Your task to perform on an android device: Is it going to rain this weekend? Image 0: 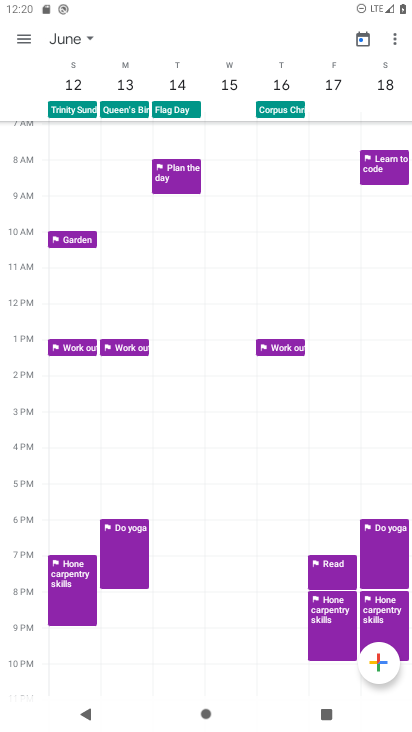
Step 0: press home button
Your task to perform on an android device: Is it going to rain this weekend? Image 1: 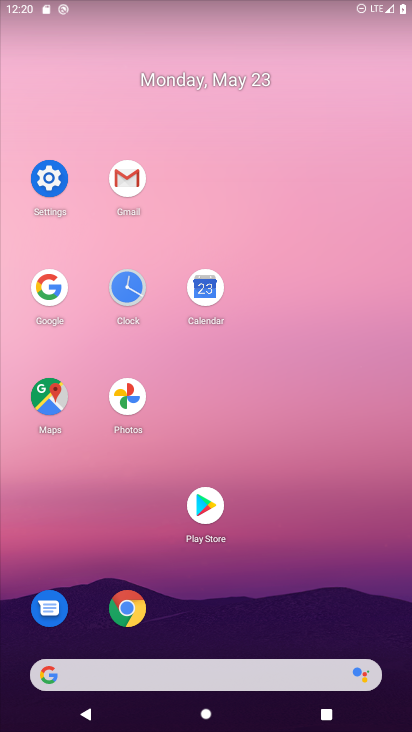
Step 1: click (53, 279)
Your task to perform on an android device: Is it going to rain this weekend? Image 2: 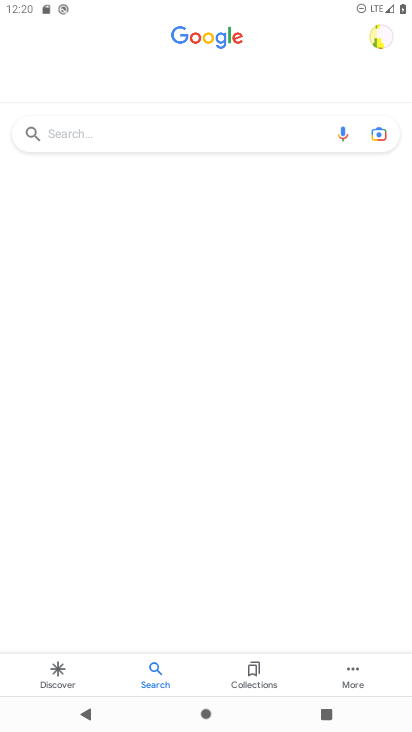
Step 2: drag from (203, 127) to (106, 128)
Your task to perform on an android device: Is it going to rain this weekend? Image 3: 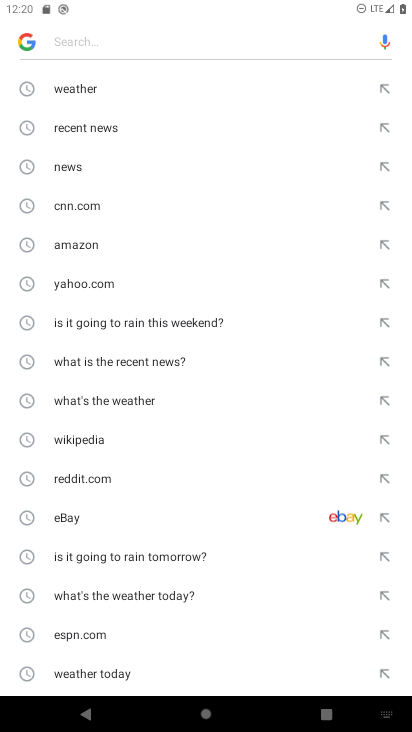
Step 3: click (127, 87)
Your task to perform on an android device: Is it going to rain this weekend? Image 4: 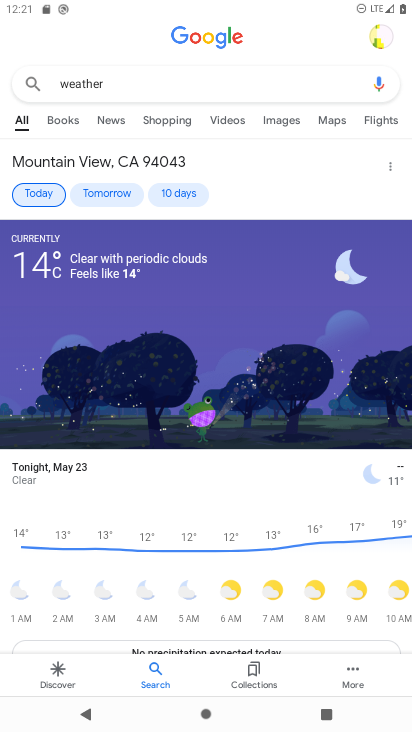
Step 4: click (169, 194)
Your task to perform on an android device: Is it going to rain this weekend? Image 5: 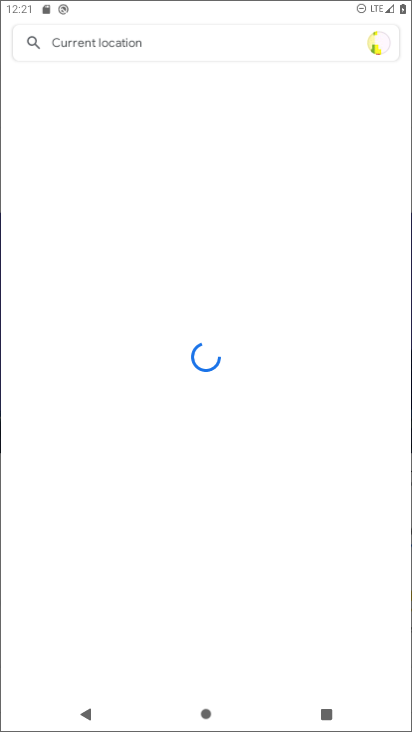
Step 5: click (169, 194)
Your task to perform on an android device: Is it going to rain this weekend? Image 6: 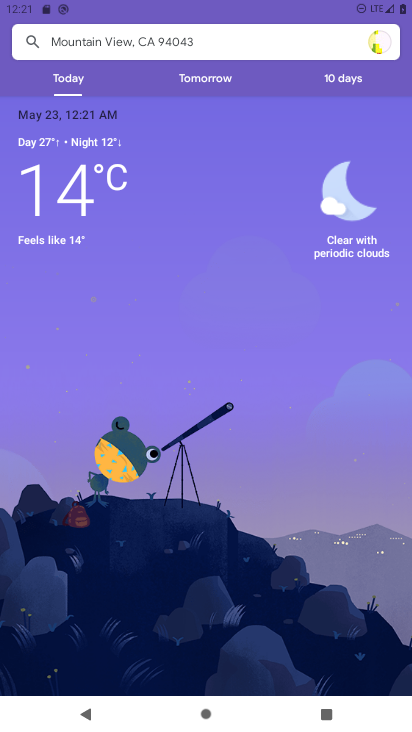
Step 6: click (370, 75)
Your task to perform on an android device: Is it going to rain this weekend? Image 7: 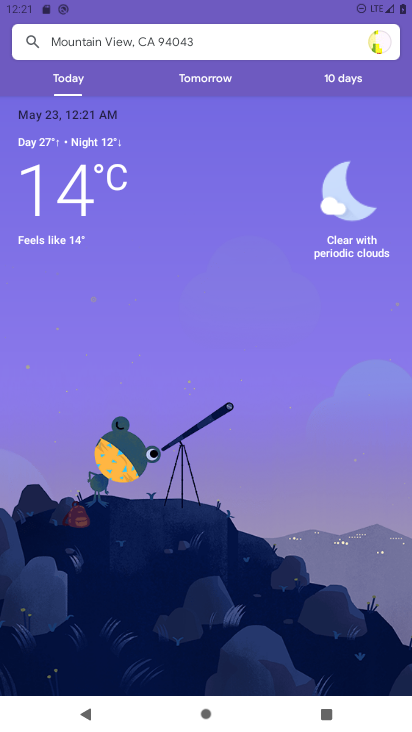
Step 7: click (357, 78)
Your task to perform on an android device: Is it going to rain this weekend? Image 8: 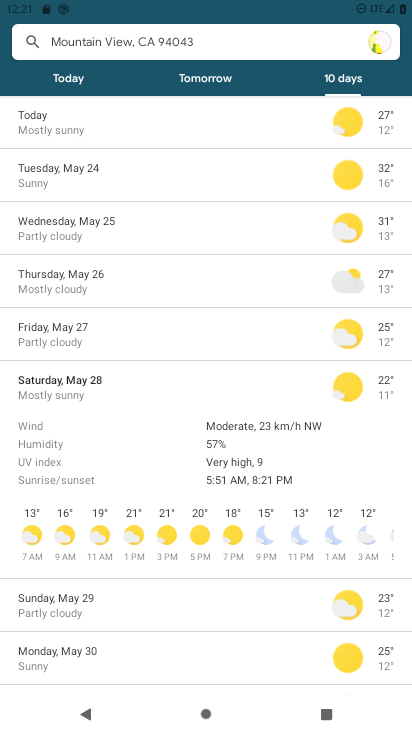
Step 8: task complete